Your task to perform on an android device: turn on the 12-hour format for clock Image 0: 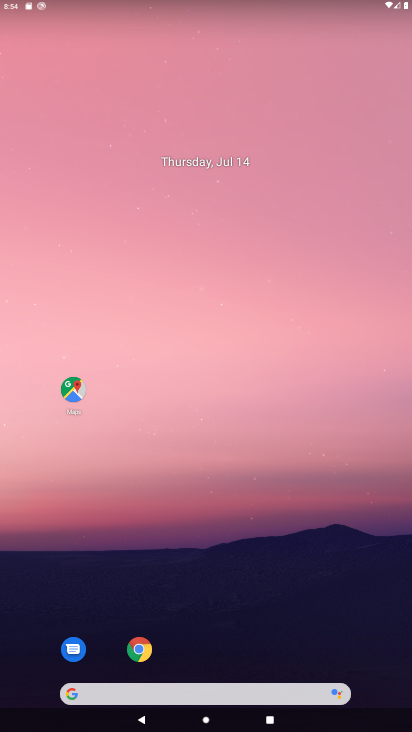
Step 0: drag from (211, 621) to (213, 28)
Your task to perform on an android device: turn on the 12-hour format for clock Image 1: 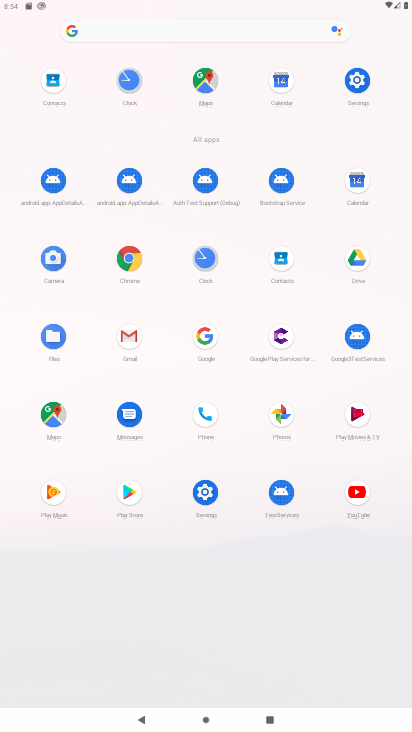
Step 1: click (214, 503)
Your task to perform on an android device: turn on the 12-hour format for clock Image 2: 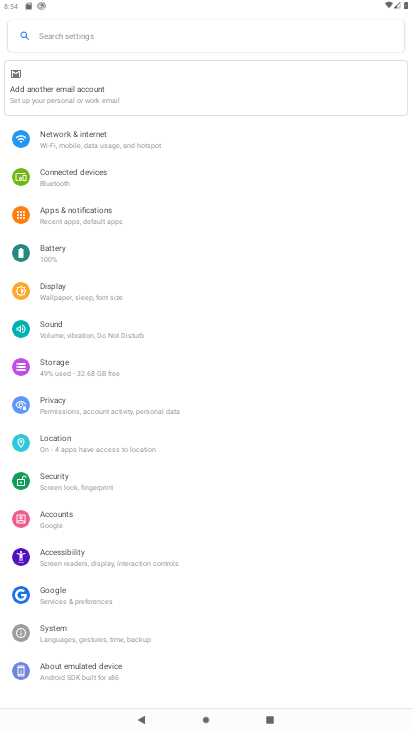
Step 2: click (77, 637)
Your task to perform on an android device: turn on the 12-hour format for clock Image 3: 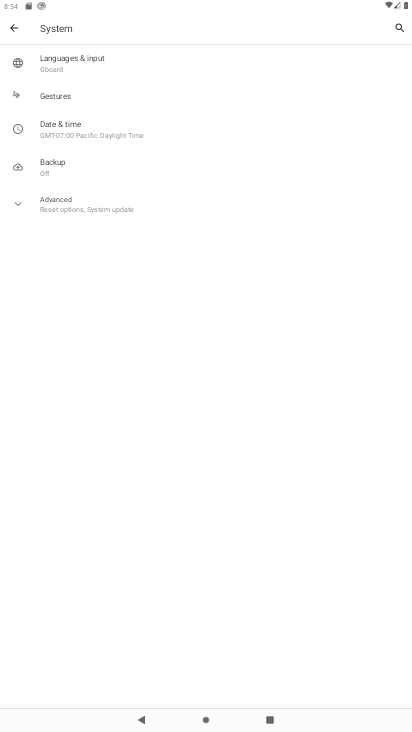
Step 3: click (79, 128)
Your task to perform on an android device: turn on the 12-hour format for clock Image 4: 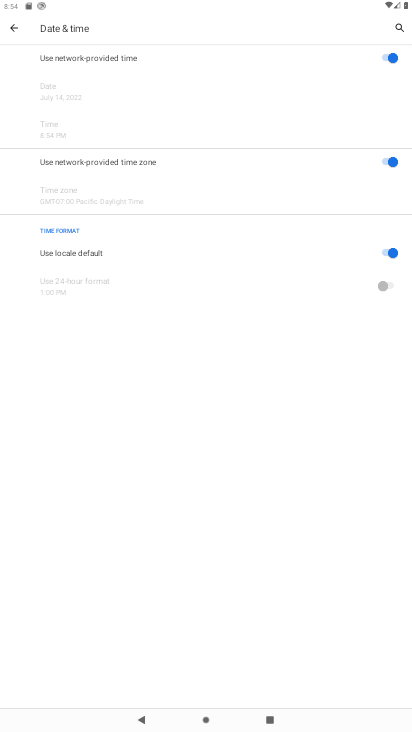
Step 4: task complete